Your task to perform on an android device: install app "Booking.com: Hotels and more" Image 0: 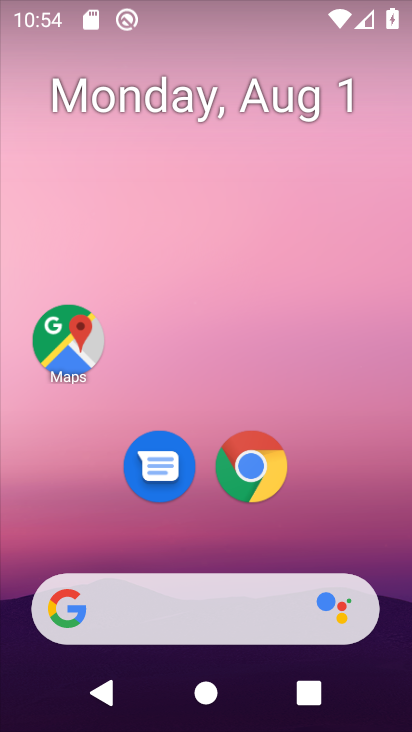
Step 0: drag from (233, 722) to (242, 156)
Your task to perform on an android device: install app "Booking.com: Hotels and more" Image 1: 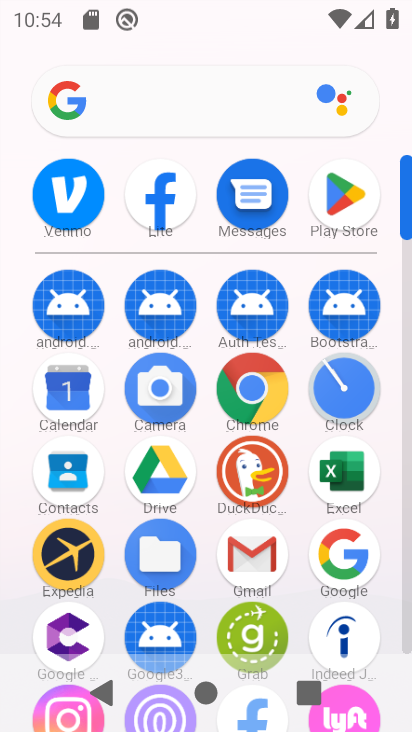
Step 1: click (337, 191)
Your task to perform on an android device: install app "Booking.com: Hotels and more" Image 2: 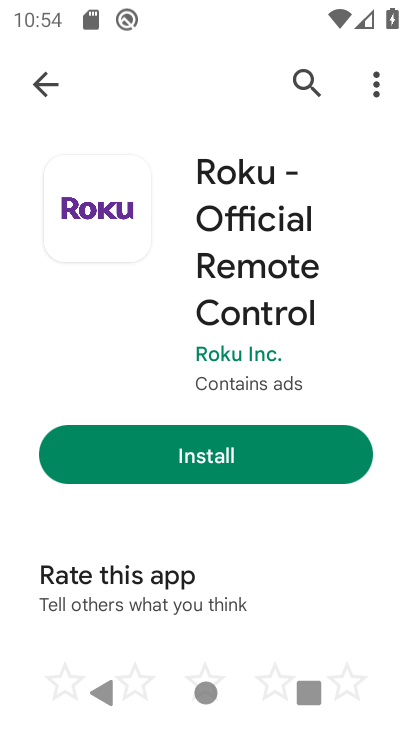
Step 2: click (307, 80)
Your task to perform on an android device: install app "Booking.com: Hotels and more" Image 3: 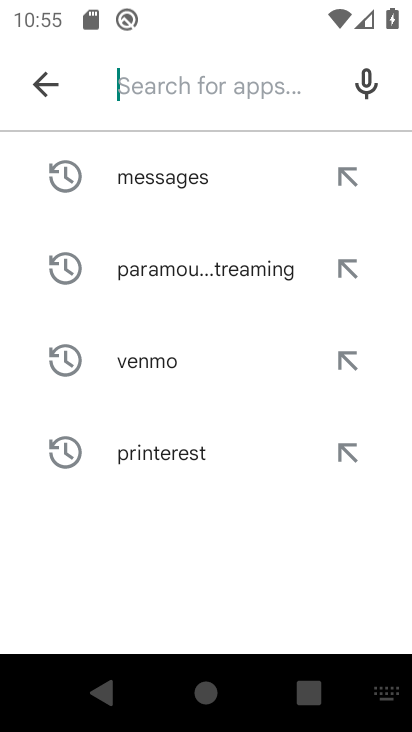
Step 3: type "Booking.com: Hotels and more"
Your task to perform on an android device: install app "Booking.com: Hotels and more" Image 4: 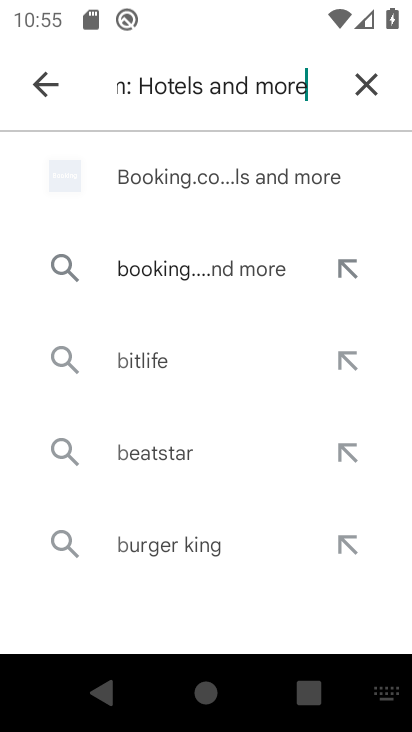
Step 4: type ""
Your task to perform on an android device: install app "Booking.com: Hotels and more" Image 5: 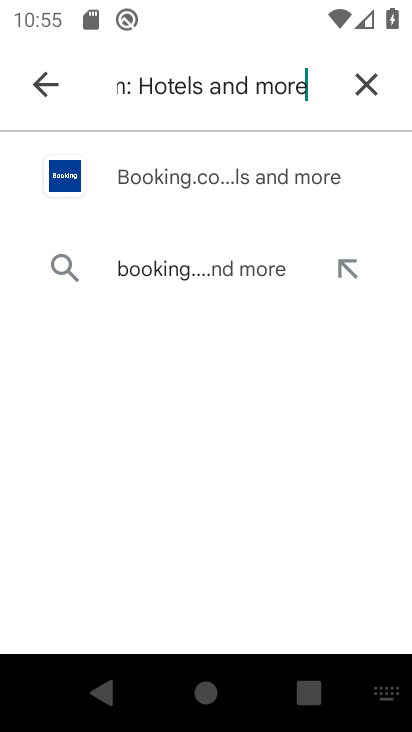
Step 5: click (261, 184)
Your task to perform on an android device: install app "Booking.com: Hotels and more" Image 6: 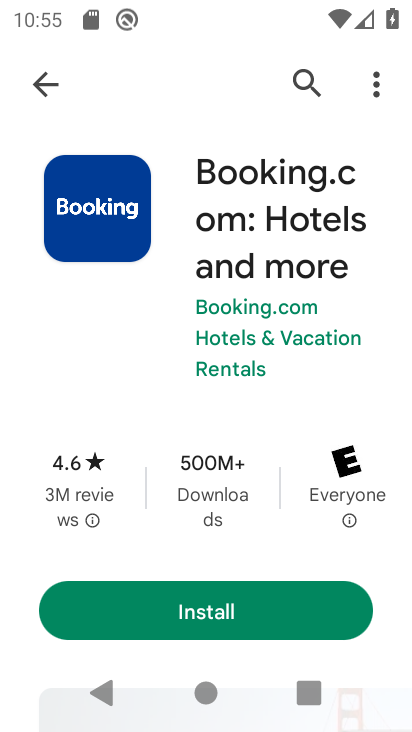
Step 6: click (201, 607)
Your task to perform on an android device: install app "Booking.com: Hotels and more" Image 7: 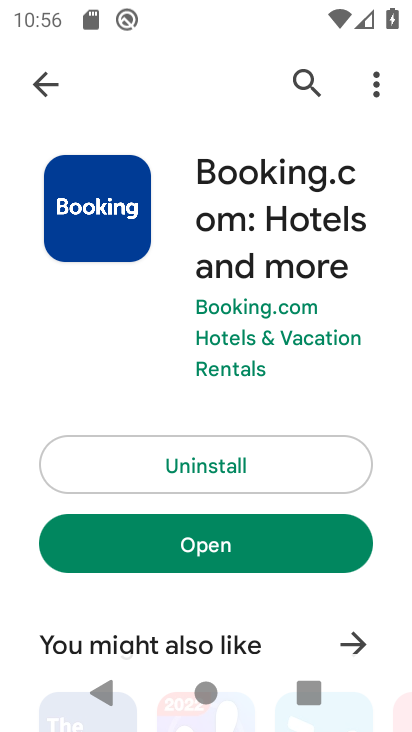
Step 7: task complete